Your task to perform on an android device: Open Youtube and go to the subscriptions tab Image 0: 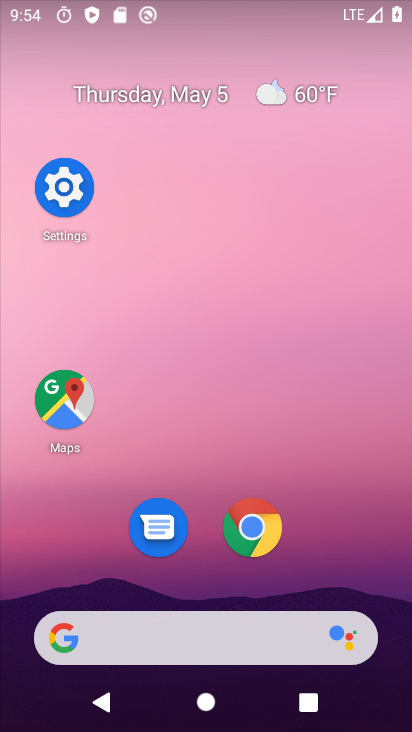
Step 0: drag from (297, 587) to (343, 132)
Your task to perform on an android device: Open Youtube and go to the subscriptions tab Image 1: 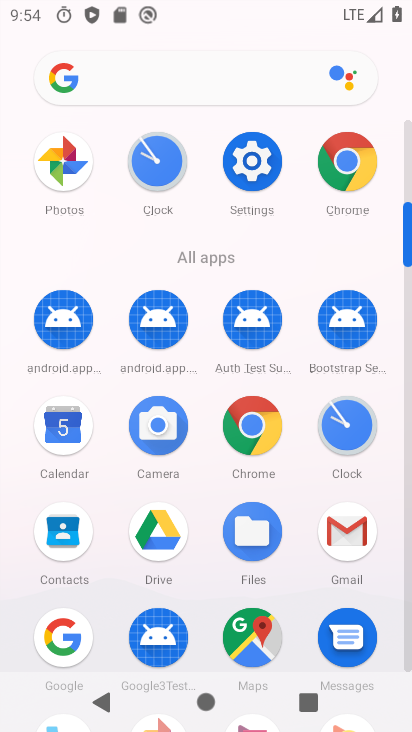
Step 1: drag from (245, 604) to (271, 152)
Your task to perform on an android device: Open Youtube and go to the subscriptions tab Image 2: 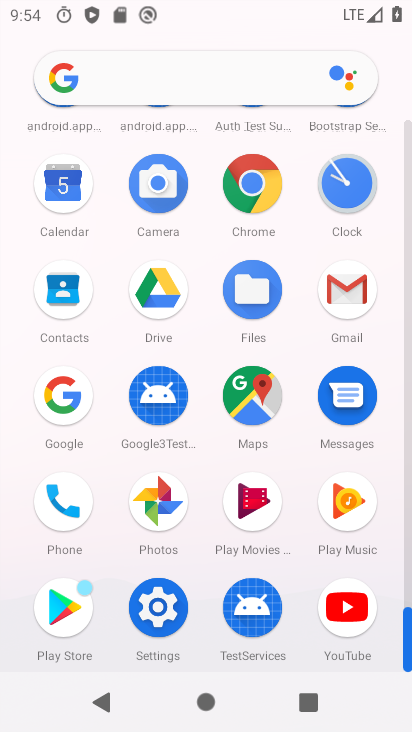
Step 2: drag from (340, 605) to (191, 244)
Your task to perform on an android device: Open Youtube and go to the subscriptions tab Image 3: 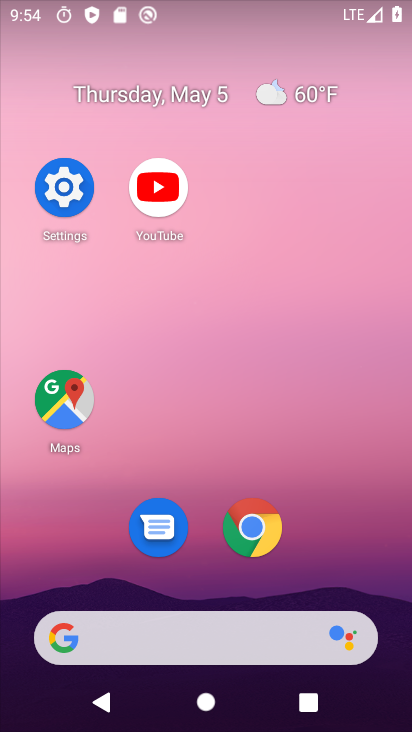
Step 3: click (154, 193)
Your task to perform on an android device: Open Youtube and go to the subscriptions tab Image 4: 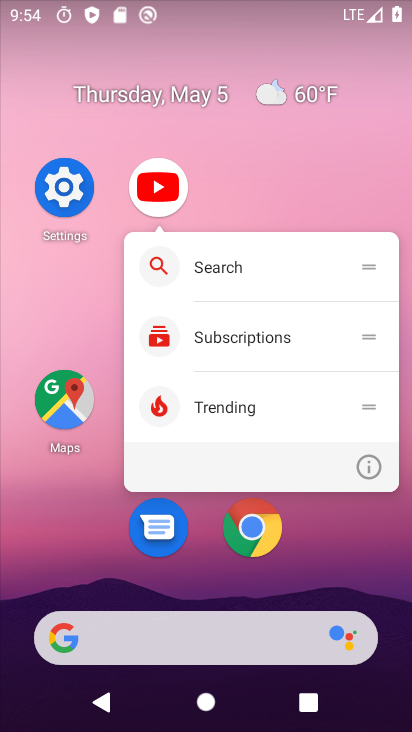
Step 4: click (159, 187)
Your task to perform on an android device: Open Youtube and go to the subscriptions tab Image 5: 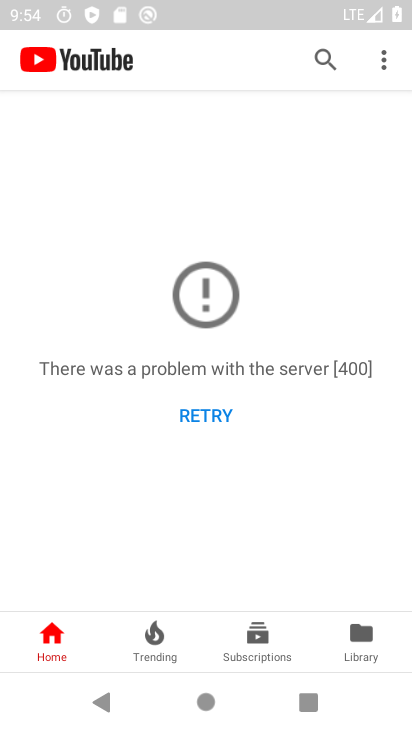
Step 5: click (262, 639)
Your task to perform on an android device: Open Youtube and go to the subscriptions tab Image 6: 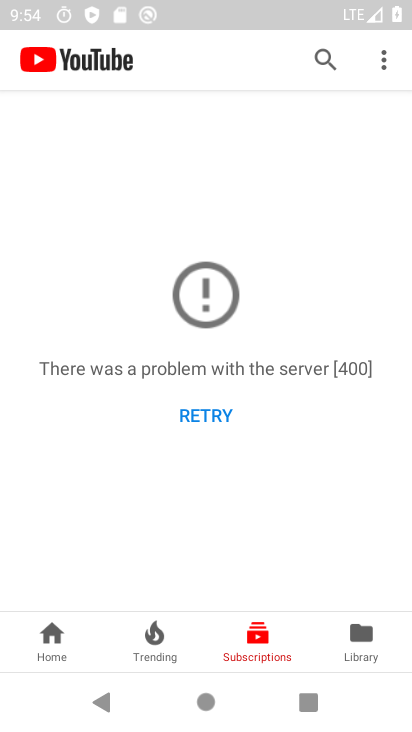
Step 6: task complete